Your task to perform on an android device: Is it going to rain today? Image 0: 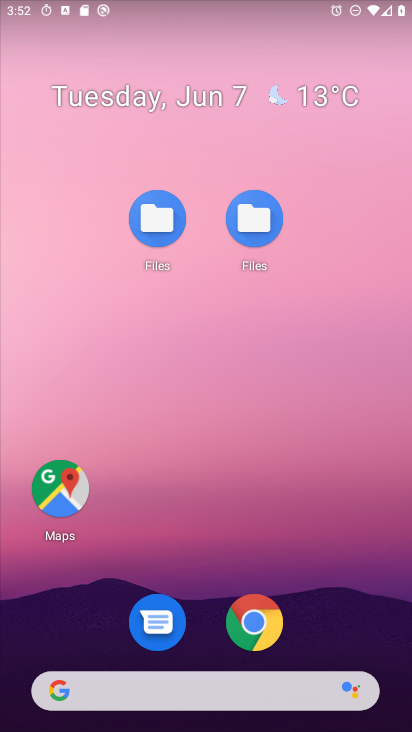
Step 0: click (237, 689)
Your task to perform on an android device: Is it going to rain today? Image 1: 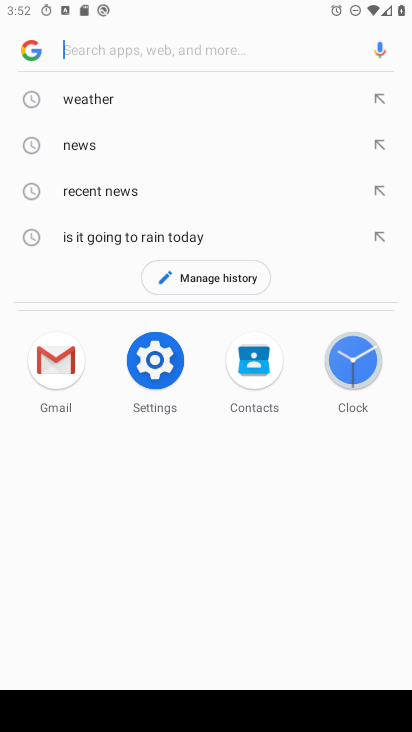
Step 1: click (148, 89)
Your task to perform on an android device: Is it going to rain today? Image 2: 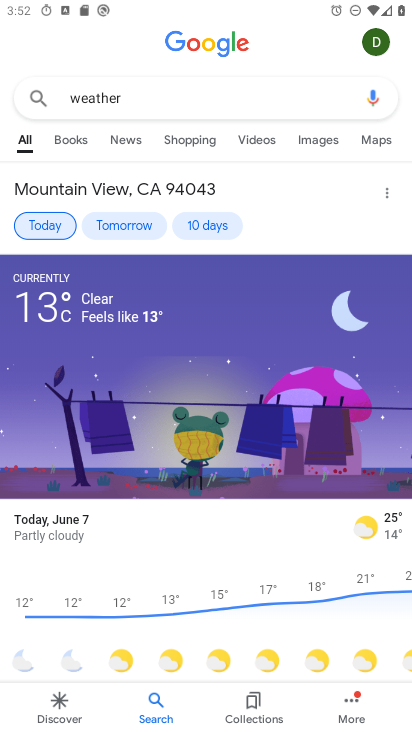
Step 2: task complete